Your task to perform on an android device: all mails in gmail Image 0: 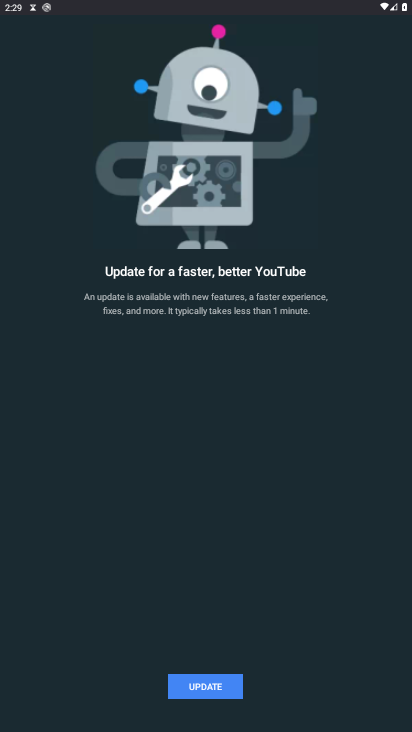
Step 0: press home button
Your task to perform on an android device: all mails in gmail Image 1: 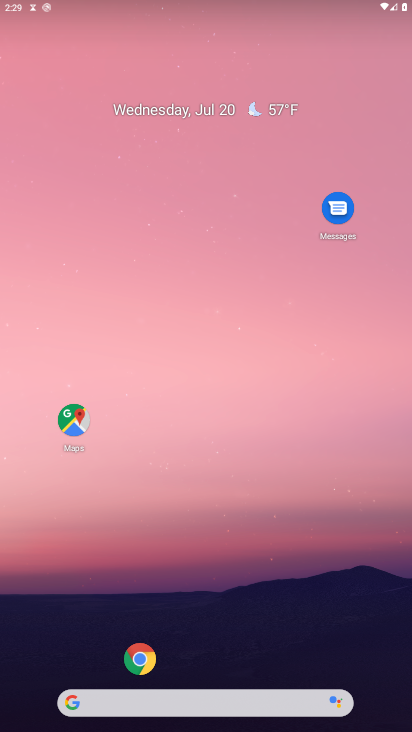
Step 1: drag from (38, 698) to (276, 132)
Your task to perform on an android device: all mails in gmail Image 2: 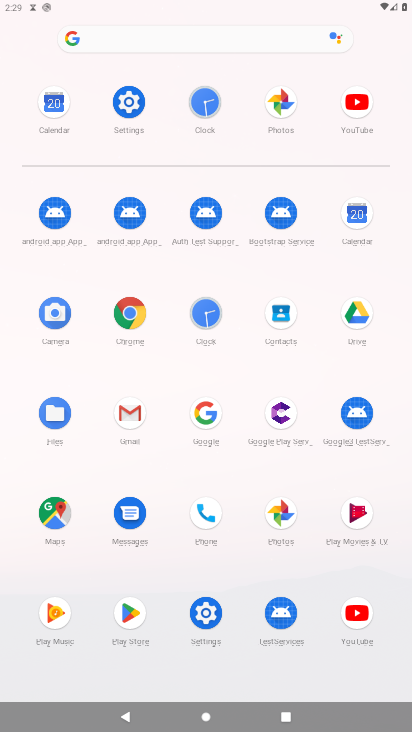
Step 2: click (127, 407)
Your task to perform on an android device: all mails in gmail Image 3: 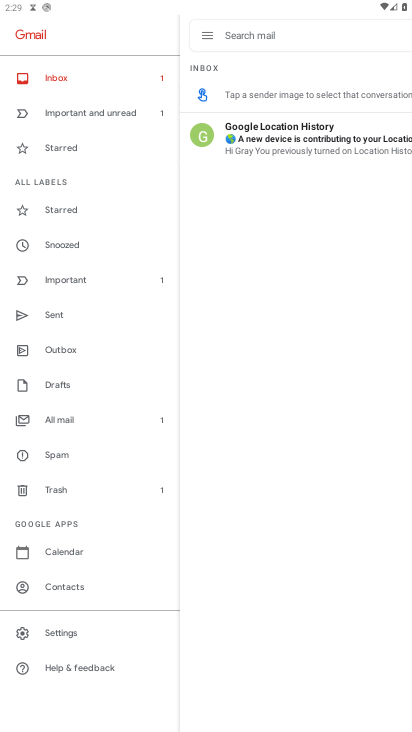
Step 3: click (78, 416)
Your task to perform on an android device: all mails in gmail Image 4: 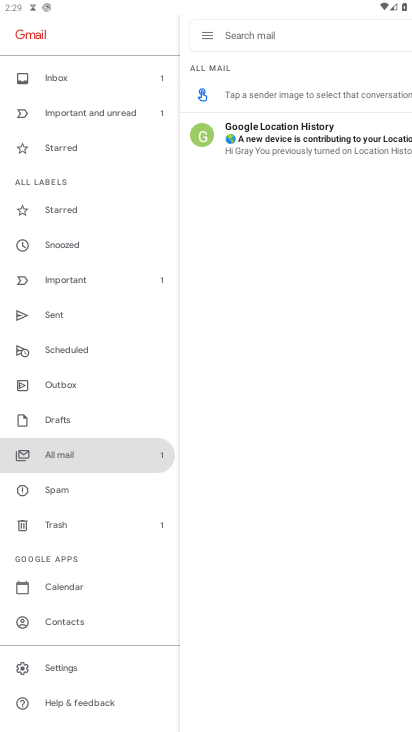
Step 4: task complete